Your task to perform on an android device: add a label to a message in the gmail app Image 0: 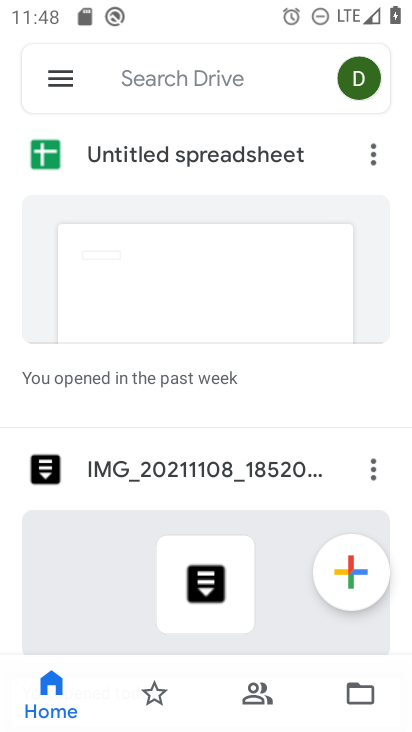
Step 0: press home button
Your task to perform on an android device: add a label to a message in the gmail app Image 1: 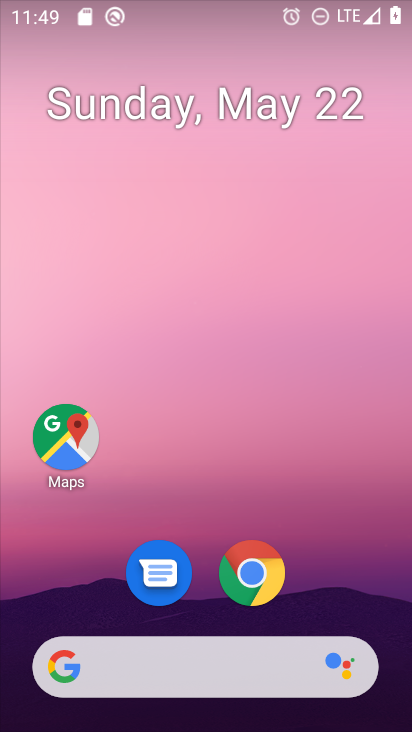
Step 1: drag from (330, 613) to (388, 101)
Your task to perform on an android device: add a label to a message in the gmail app Image 2: 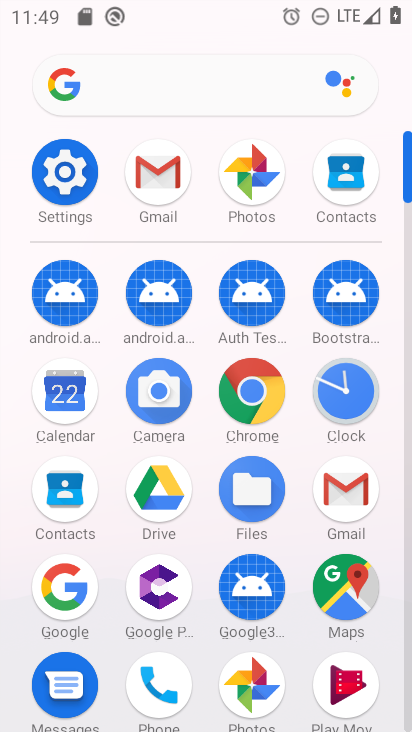
Step 2: click (353, 485)
Your task to perform on an android device: add a label to a message in the gmail app Image 3: 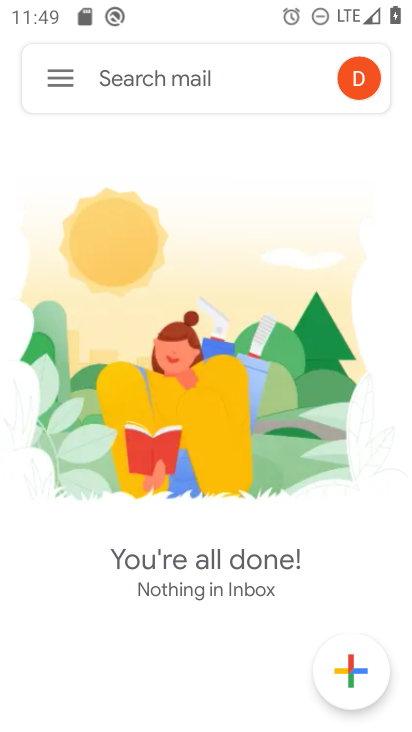
Step 3: click (58, 85)
Your task to perform on an android device: add a label to a message in the gmail app Image 4: 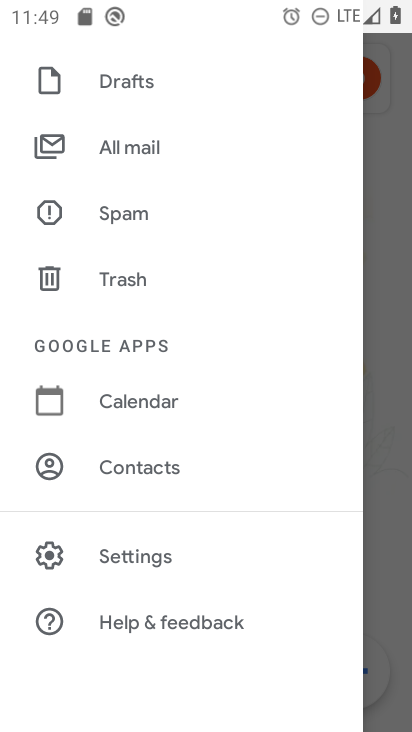
Step 4: click (144, 148)
Your task to perform on an android device: add a label to a message in the gmail app Image 5: 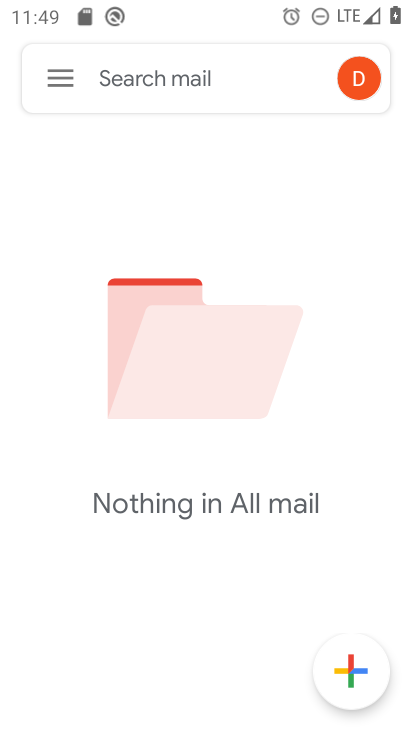
Step 5: task complete